Your task to perform on an android device: Clear the shopping cart on ebay. Image 0: 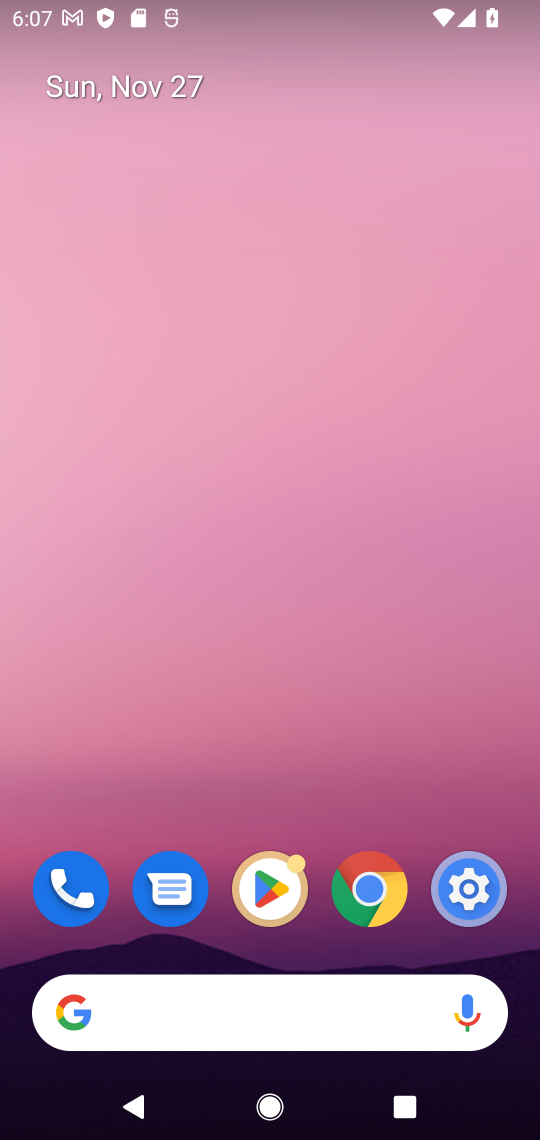
Step 0: click (369, 884)
Your task to perform on an android device: Clear the shopping cart on ebay. Image 1: 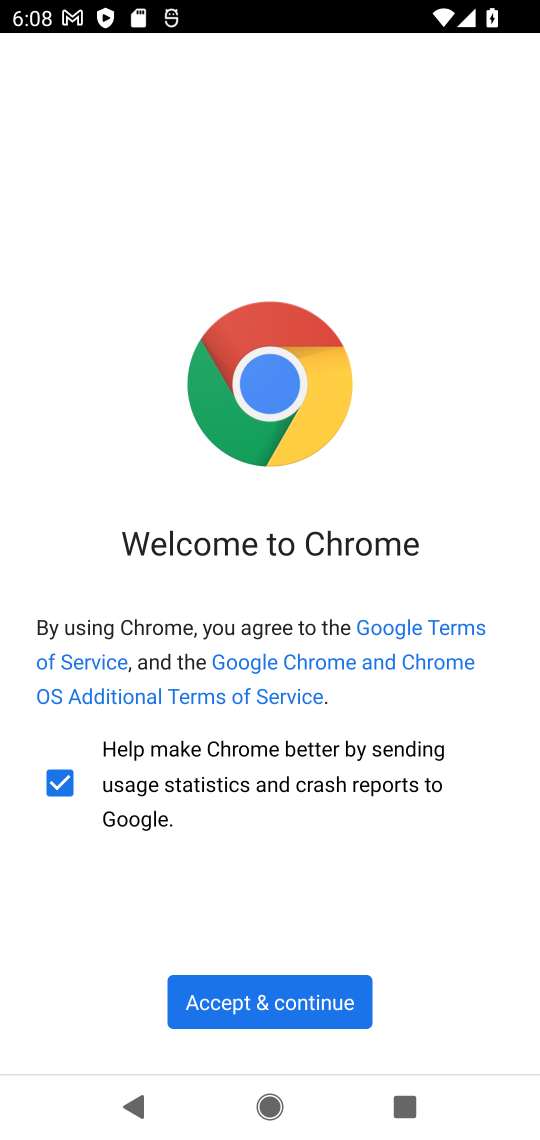
Step 1: click (300, 998)
Your task to perform on an android device: Clear the shopping cart on ebay. Image 2: 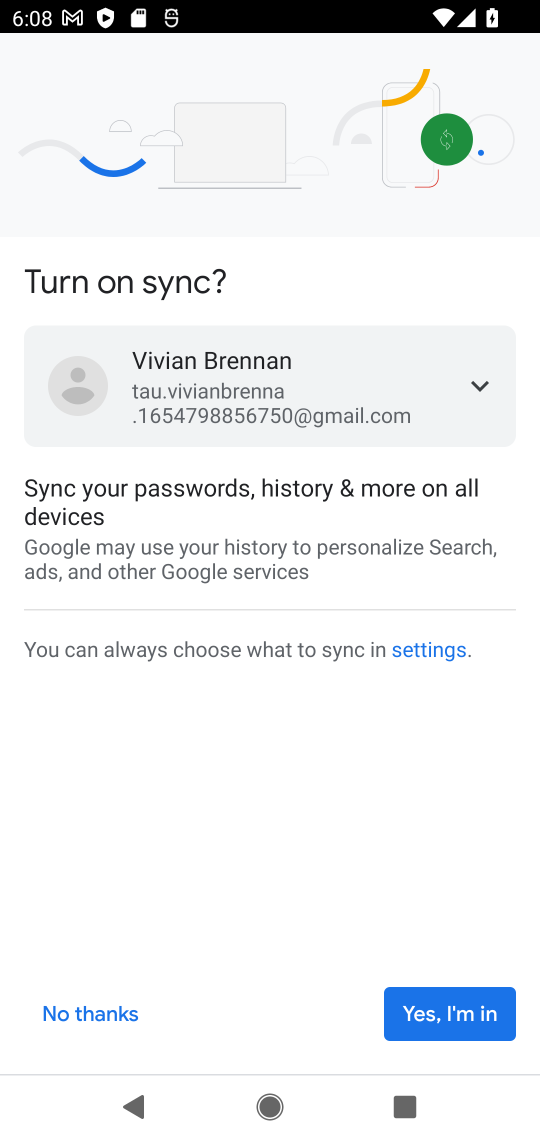
Step 2: click (490, 1013)
Your task to perform on an android device: Clear the shopping cart on ebay. Image 3: 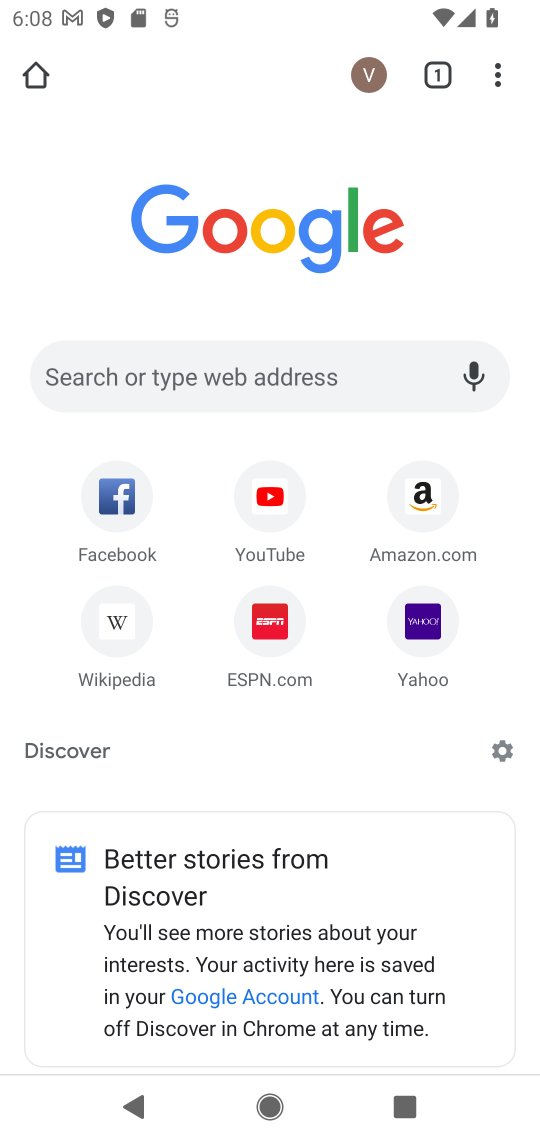
Step 3: click (200, 363)
Your task to perform on an android device: Clear the shopping cart on ebay. Image 4: 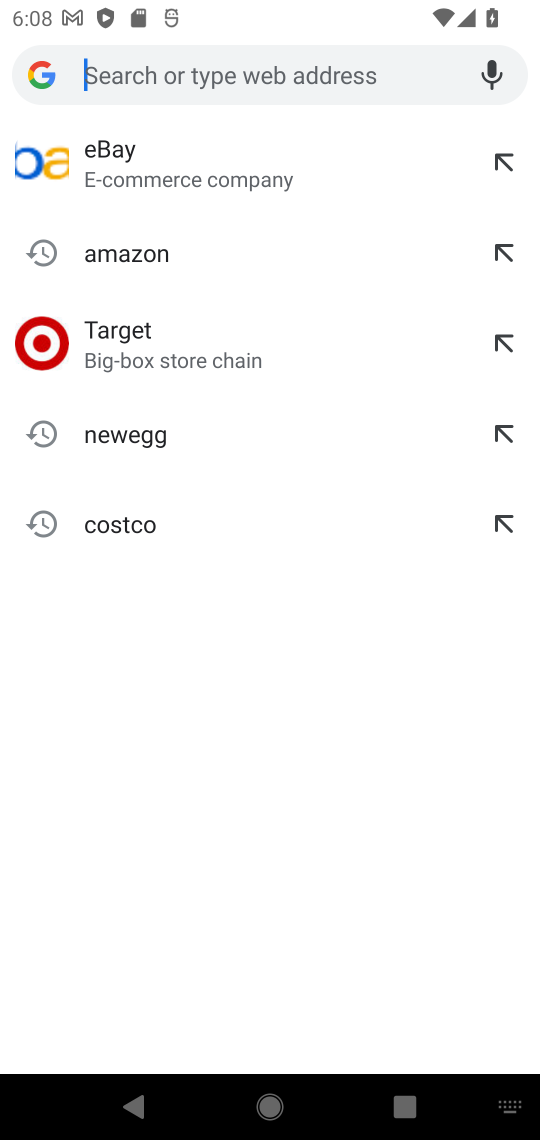
Step 4: type "ebay"
Your task to perform on an android device: Clear the shopping cart on ebay. Image 5: 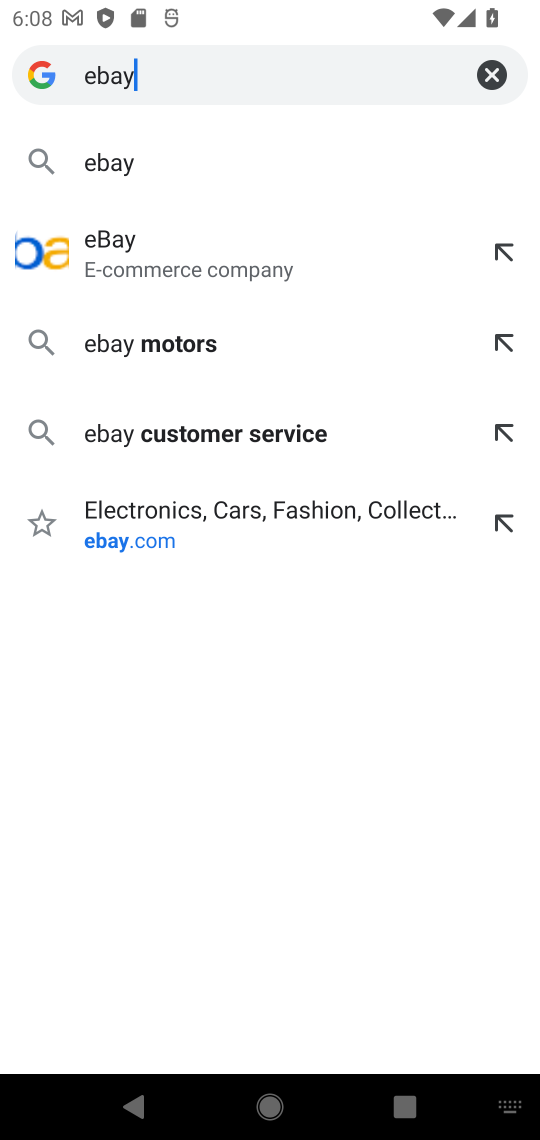
Step 5: click (116, 161)
Your task to perform on an android device: Clear the shopping cart on ebay. Image 6: 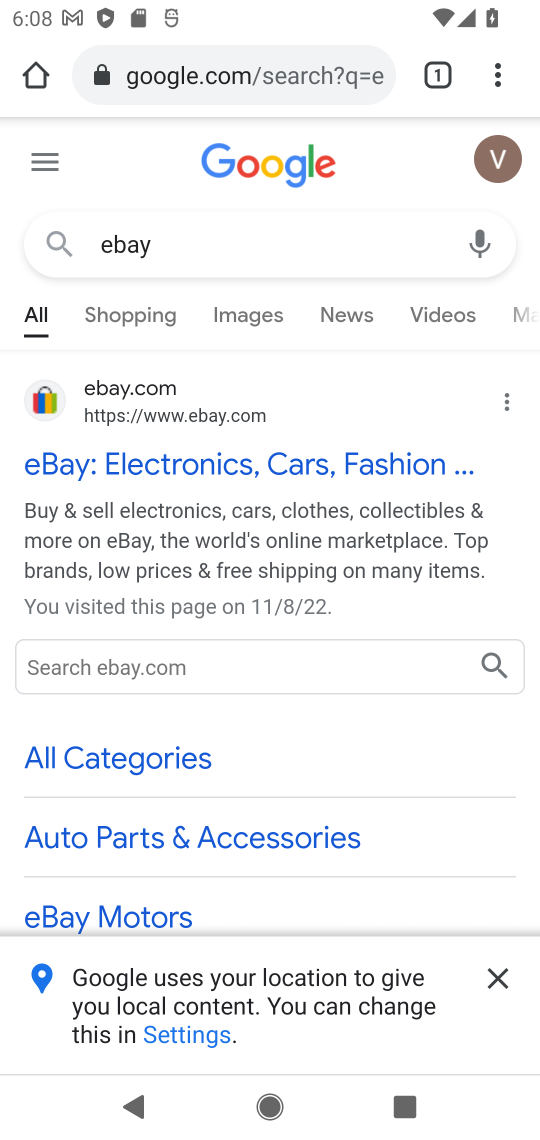
Step 6: click (133, 477)
Your task to perform on an android device: Clear the shopping cart on ebay. Image 7: 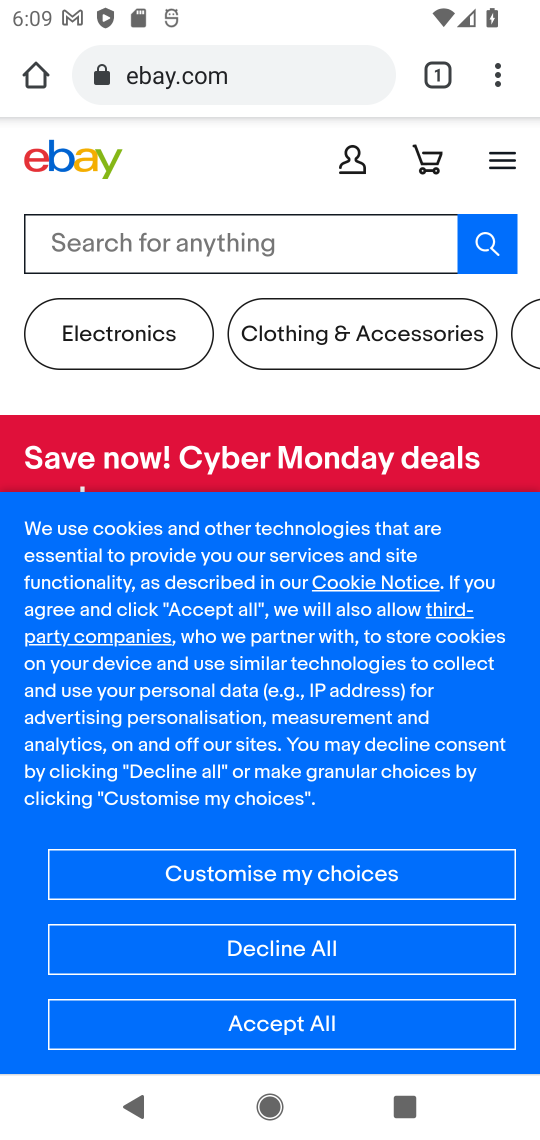
Step 7: click (263, 1017)
Your task to perform on an android device: Clear the shopping cart on ebay. Image 8: 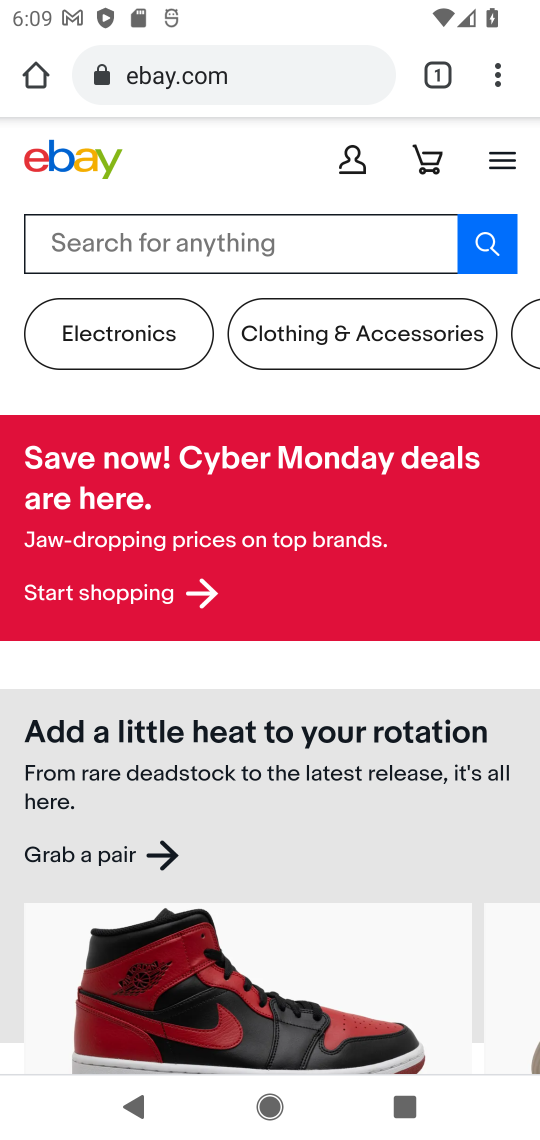
Step 8: click (411, 155)
Your task to perform on an android device: Clear the shopping cart on ebay. Image 9: 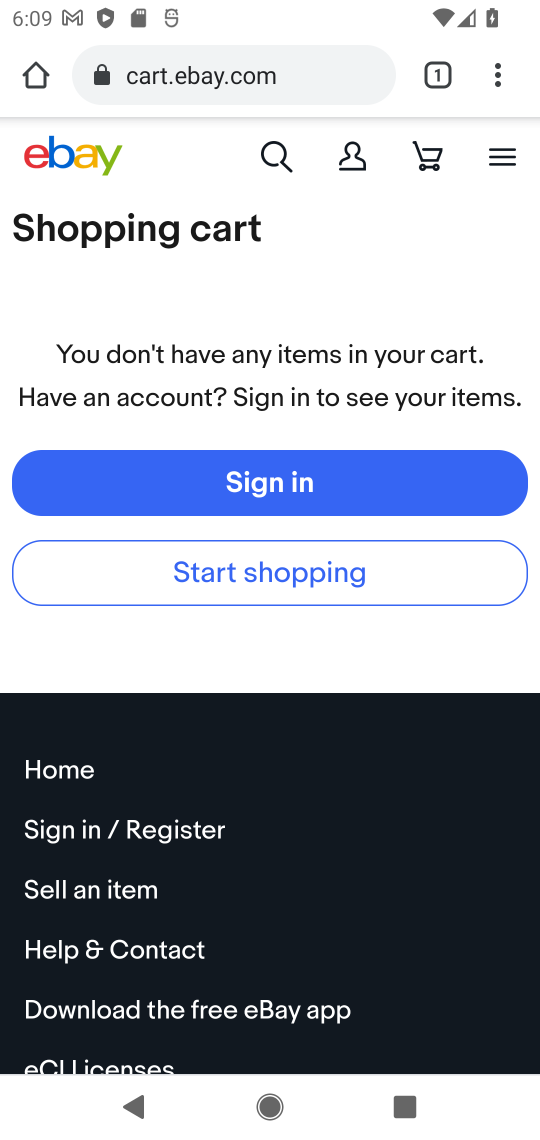
Step 9: task complete